Your task to perform on an android device: turn pop-ups off in chrome Image 0: 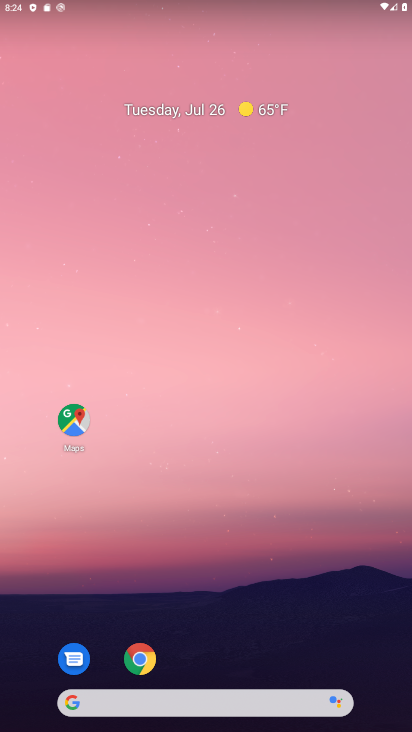
Step 0: click (155, 670)
Your task to perform on an android device: turn pop-ups off in chrome Image 1: 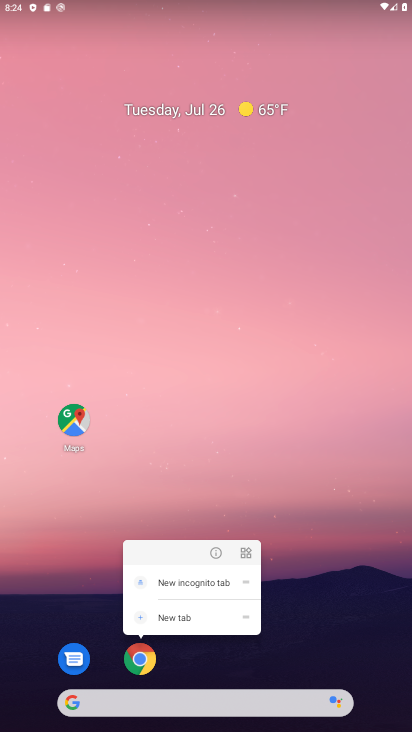
Step 1: click (140, 667)
Your task to perform on an android device: turn pop-ups off in chrome Image 2: 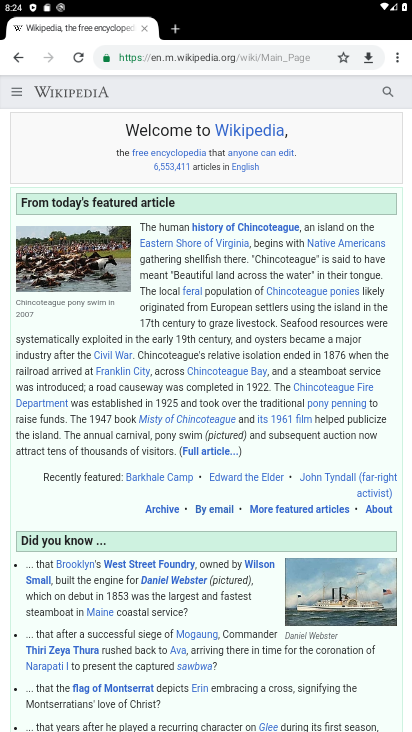
Step 2: click (169, 497)
Your task to perform on an android device: turn pop-ups off in chrome Image 3: 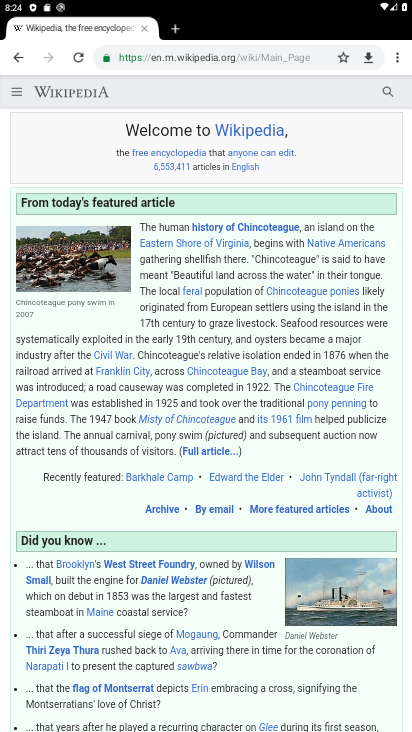
Step 3: click (397, 57)
Your task to perform on an android device: turn pop-ups off in chrome Image 4: 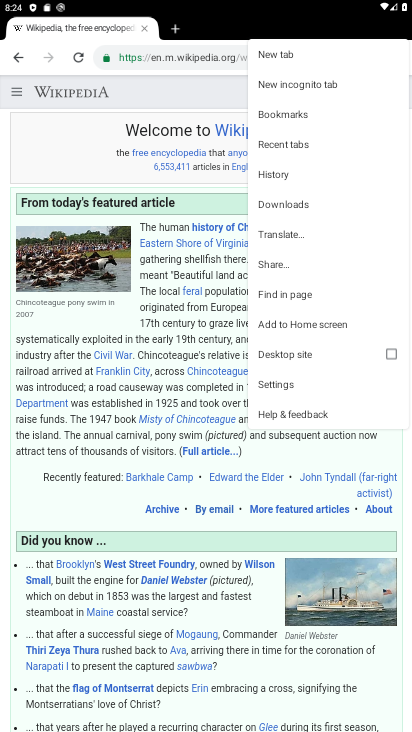
Step 4: click (289, 384)
Your task to perform on an android device: turn pop-ups off in chrome Image 5: 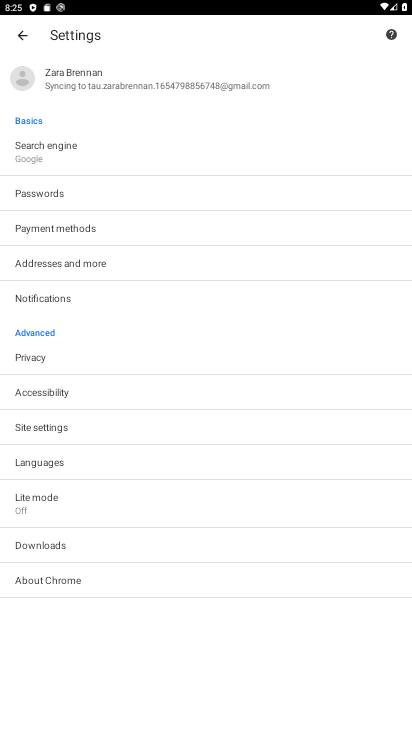
Step 5: click (38, 420)
Your task to perform on an android device: turn pop-ups off in chrome Image 6: 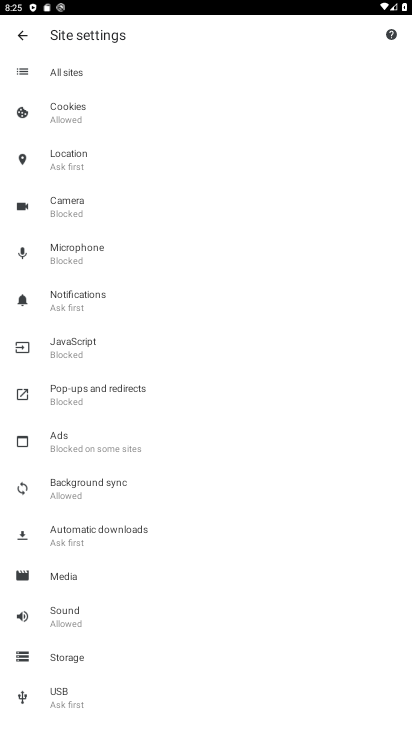
Step 6: click (95, 396)
Your task to perform on an android device: turn pop-ups off in chrome Image 7: 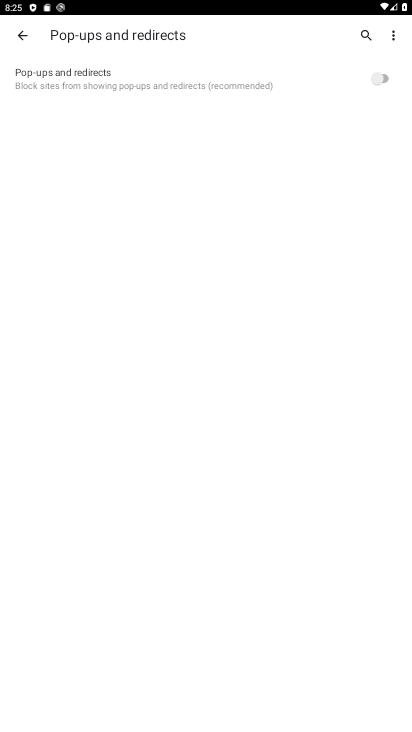
Step 7: task complete